Your task to perform on an android device: open chrome and create a bookmark for the current page Image 0: 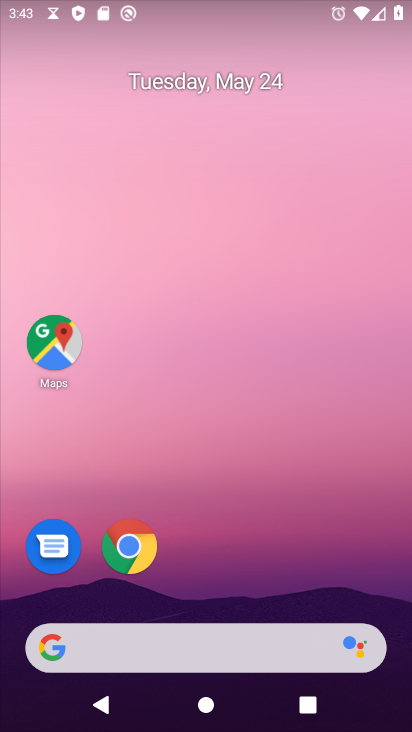
Step 0: drag from (382, 675) to (292, 168)
Your task to perform on an android device: open chrome and create a bookmark for the current page Image 1: 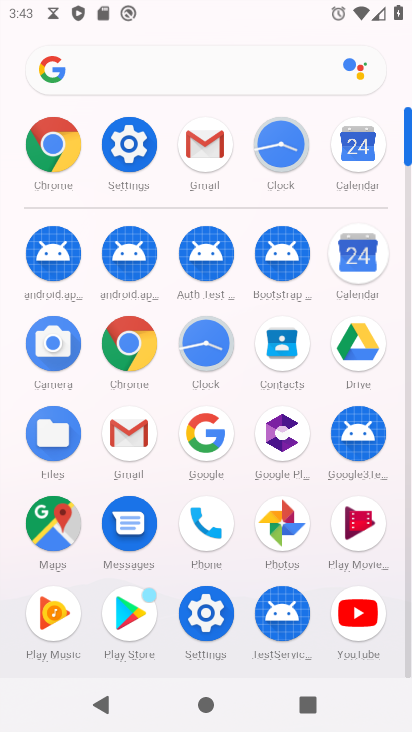
Step 1: click (47, 143)
Your task to perform on an android device: open chrome and create a bookmark for the current page Image 2: 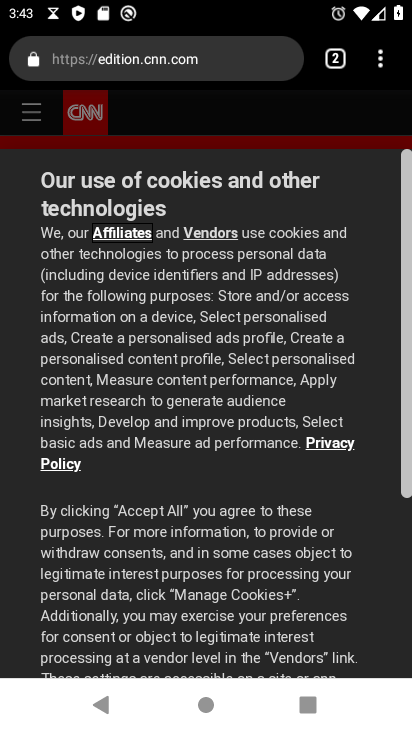
Step 2: drag from (382, 47) to (190, 218)
Your task to perform on an android device: open chrome and create a bookmark for the current page Image 3: 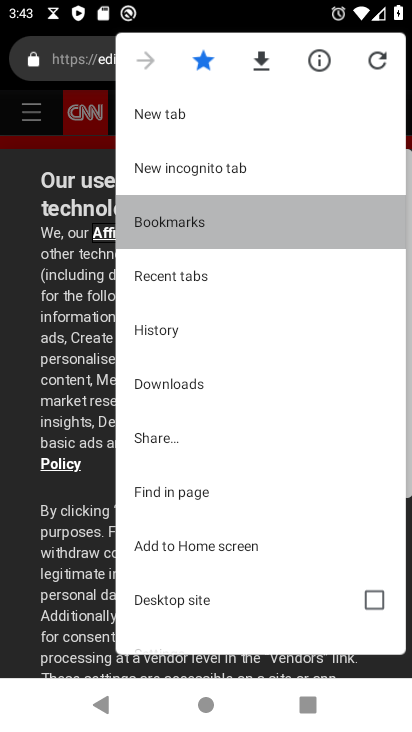
Step 3: click (189, 219)
Your task to perform on an android device: open chrome and create a bookmark for the current page Image 4: 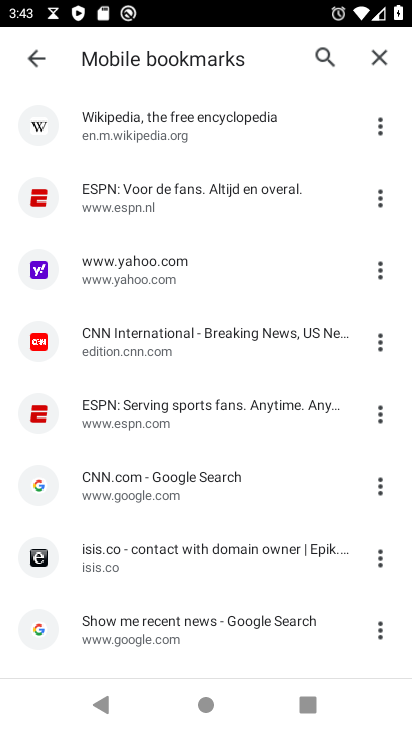
Step 4: click (380, 128)
Your task to perform on an android device: open chrome and create a bookmark for the current page Image 5: 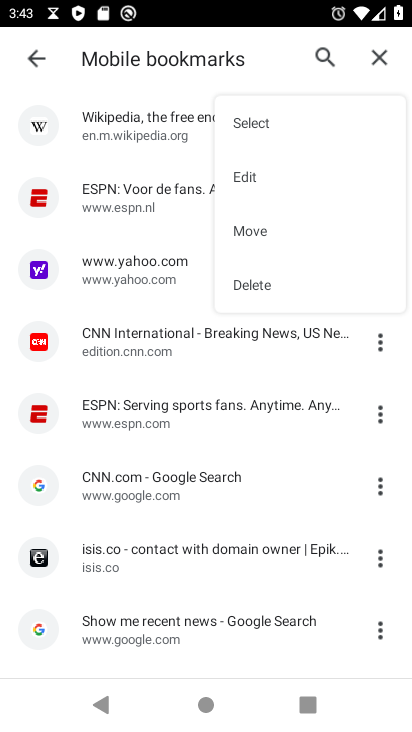
Step 5: click (32, 52)
Your task to perform on an android device: open chrome and create a bookmark for the current page Image 6: 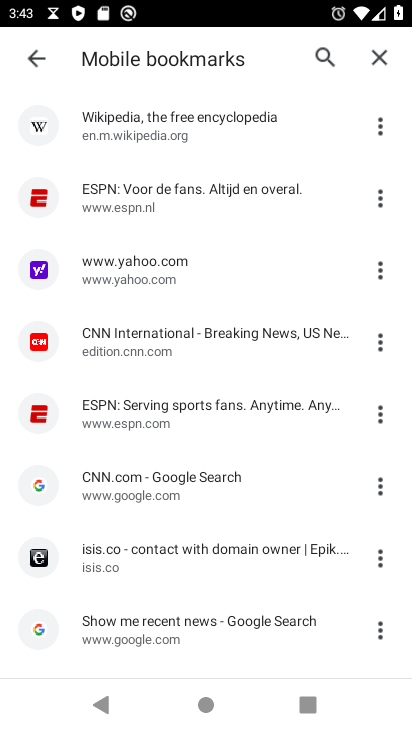
Step 6: click (33, 55)
Your task to perform on an android device: open chrome and create a bookmark for the current page Image 7: 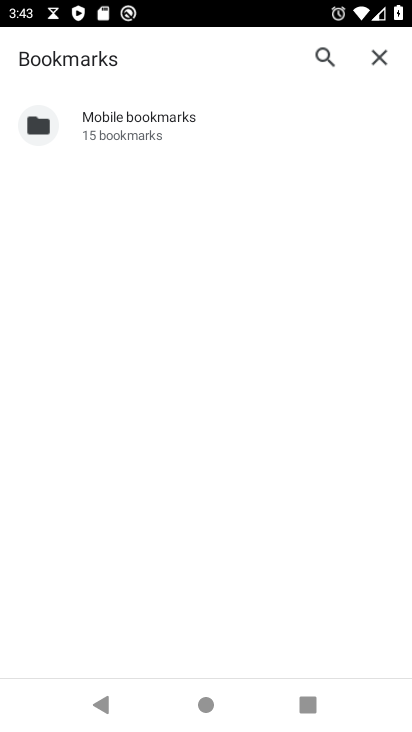
Step 7: click (372, 54)
Your task to perform on an android device: open chrome and create a bookmark for the current page Image 8: 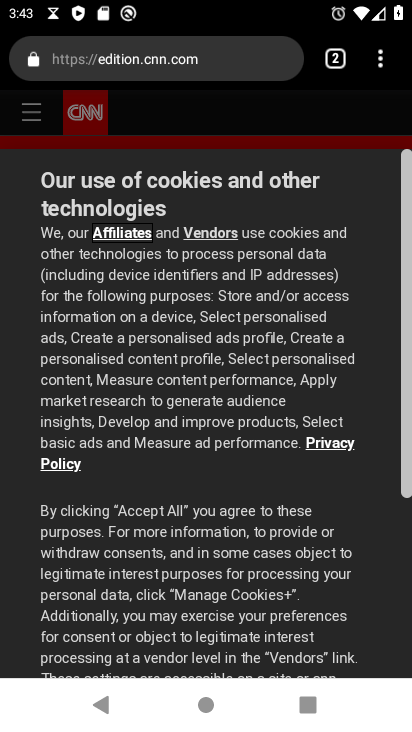
Step 8: click (381, 70)
Your task to perform on an android device: open chrome and create a bookmark for the current page Image 9: 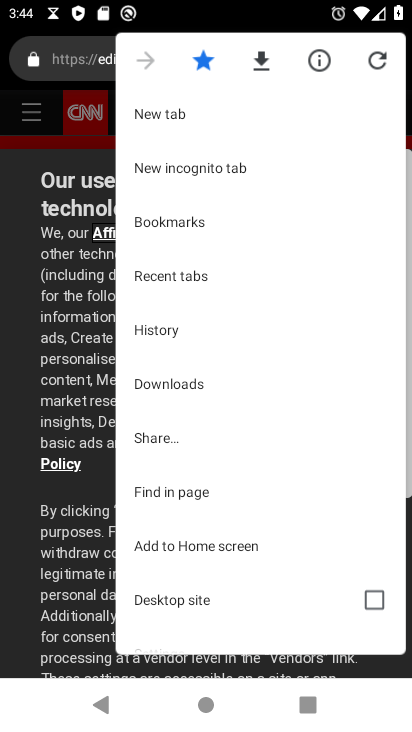
Step 9: click (200, 55)
Your task to perform on an android device: open chrome and create a bookmark for the current page Image 10: 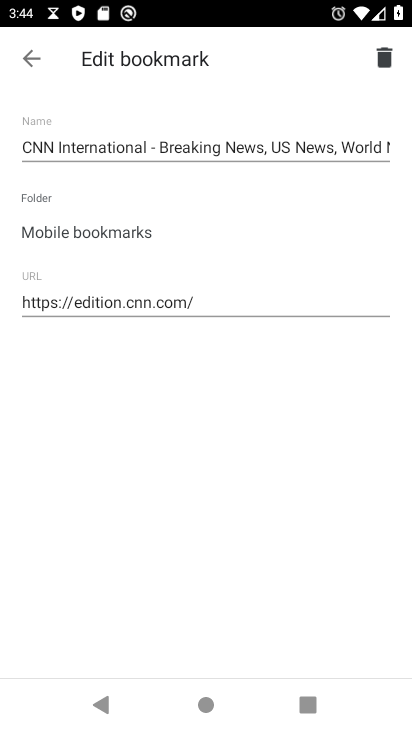
Step 10: click (33, 64)
Your task to perform on an android device: open chrome and create a bookmark for the current page Image 11: 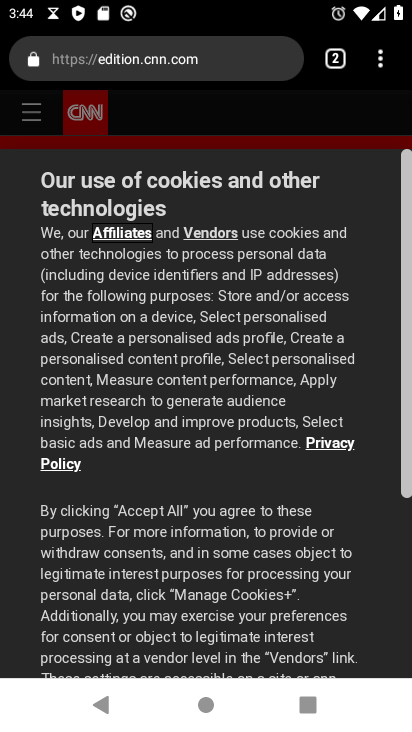
Step 11: click (82, 55)
Your task to perform on an android device: open chrome and create a bookmark for the current page Image 12: 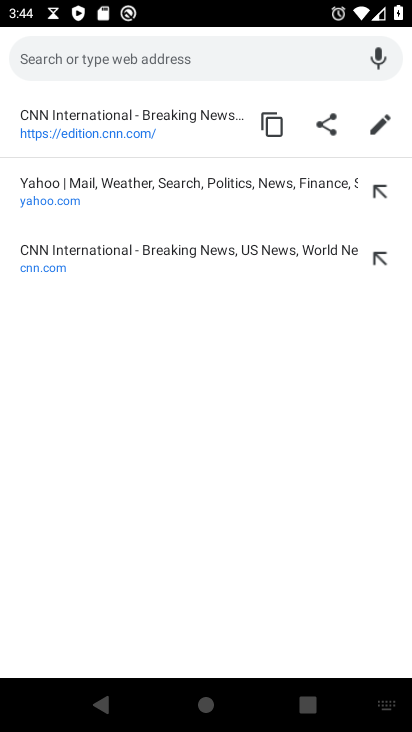
Step 12: type "www.snapdeal.com"
Your task to perform on an android device: open chrome and create a bookmark for the current page Image 13: 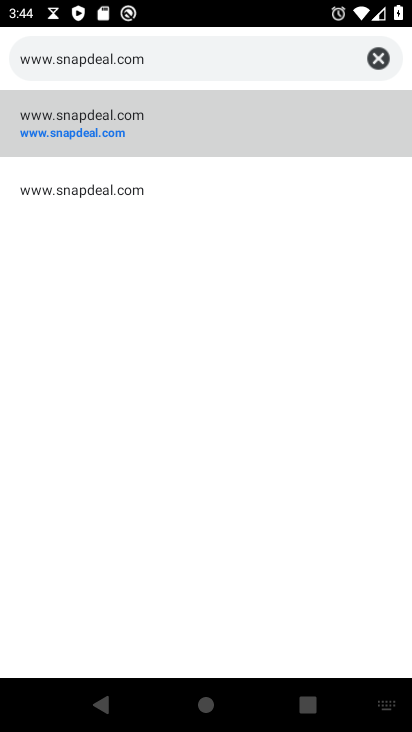
Step 13: click (71, 132)
Your task to perform on an android device: open chrome and create a bookmark for the current page Image 14: 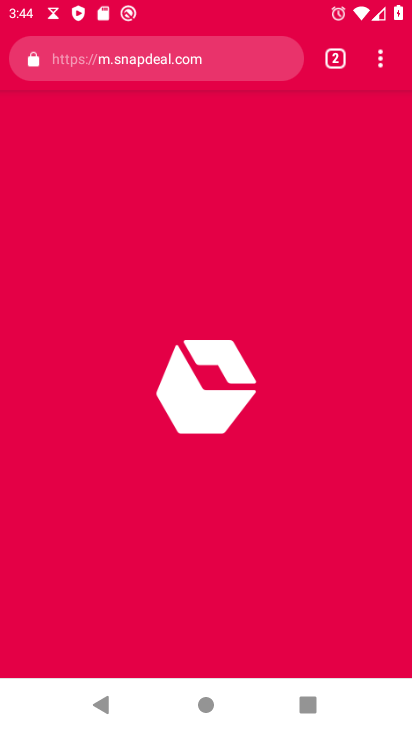
Step 14: click (147, 51)
Your task to perform on an android device: open chrome and create a bookmark for the current page Image 15: 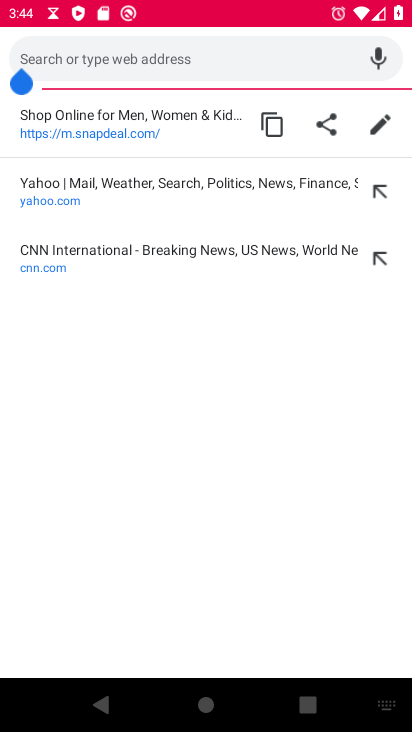
Step 15: click (146, 52)
Your task to perform on an android device: open chrome and create a bookmark for the current page Image 16: 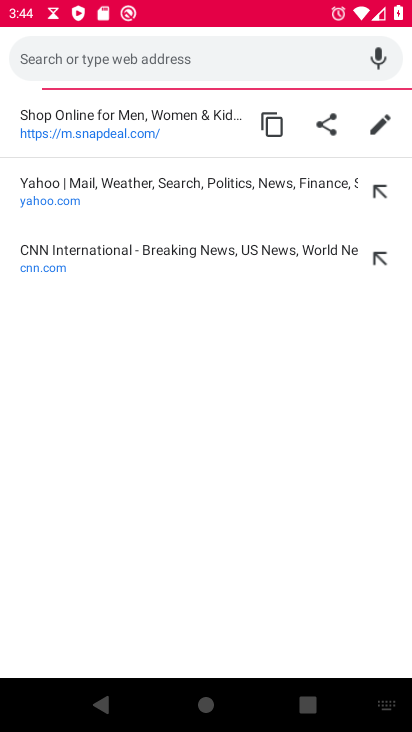
Step 16: click (108, 134)
Your task to perform on an android device: open chrome and create a bookmark for the current page Image 17: 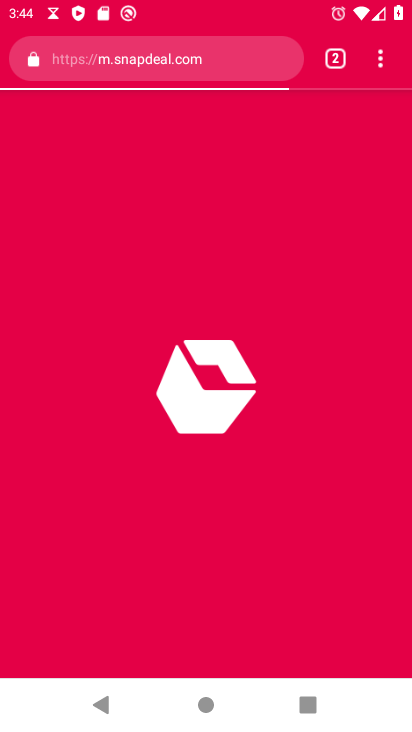
Step 17: click (378, 60)
Your task to perform on an android device: open chrome and create a bookmark for the current page Image 18: 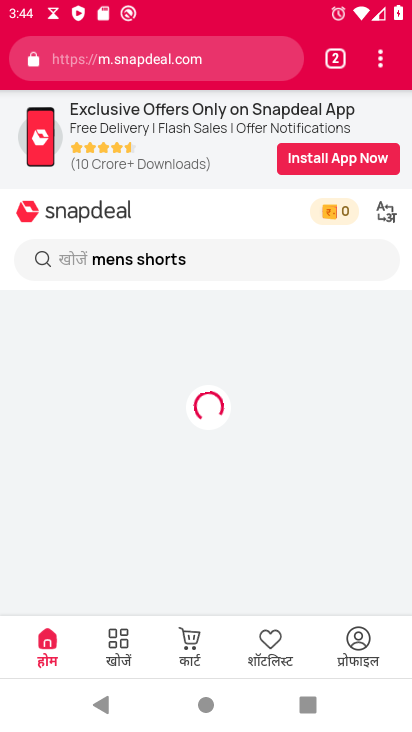
Step 18: drag from (378, 60) to (197, 61)
Your task to perform on an android device: open chrome and create a bookmark for the current page Image 19: 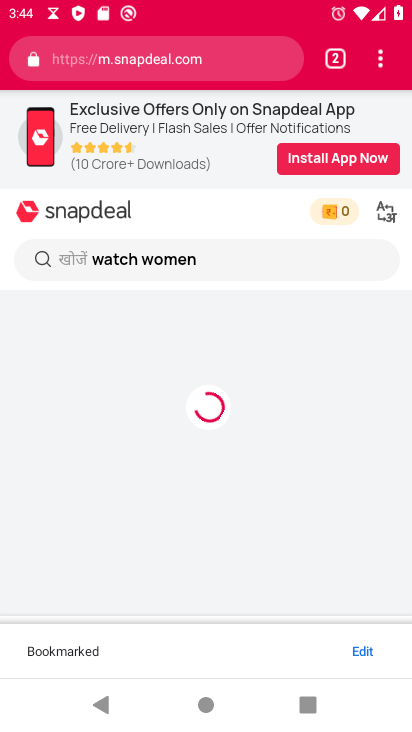
Step 19: click (382, 58)
Your task to perform on an android device: open chrome and create a bookmark for the current page Image 20: 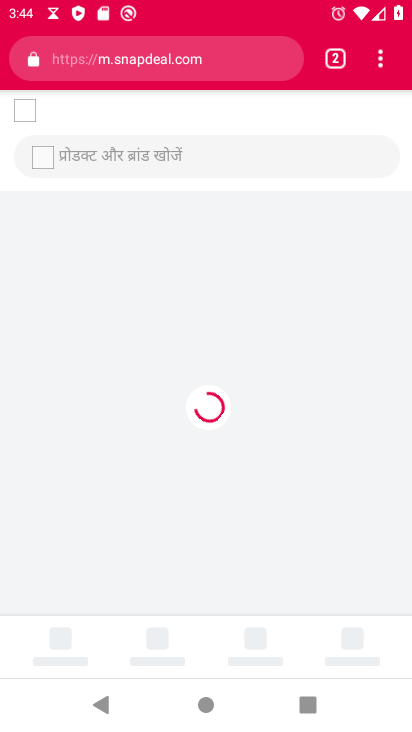
Step 20: click (374, 51)
Your task to perform on an android device: open chrome and create a bookmark for the current page Image 21: 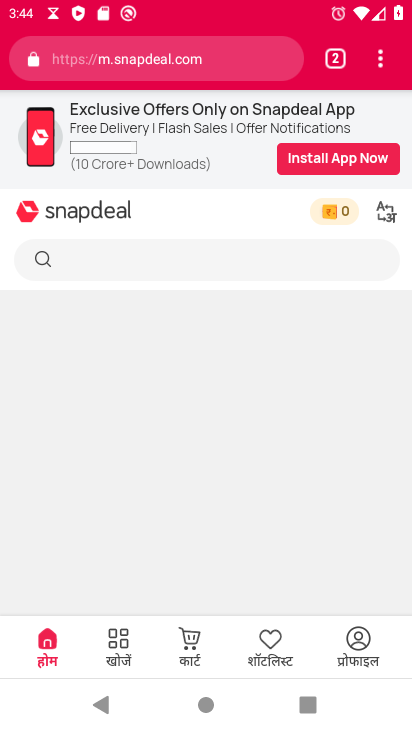
Step 21: click (374, 51)
Your task to perform on an android device: open chrome and create a bookmark for the current page Image 22: 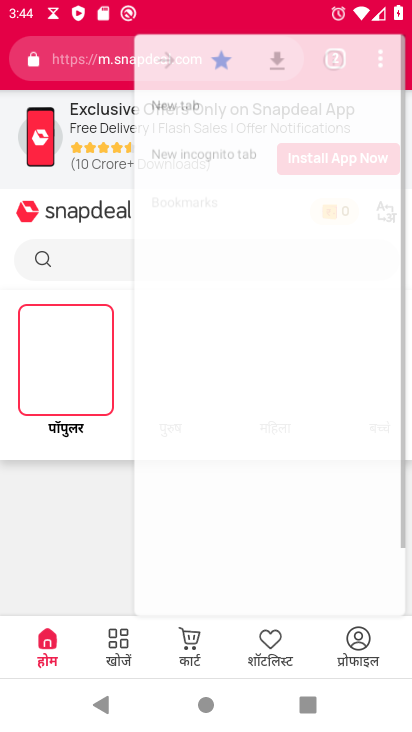
Step 22: click (374, 51)
Your task to perform on an android device: open chrome and create a bookmark for the current page Image 23: 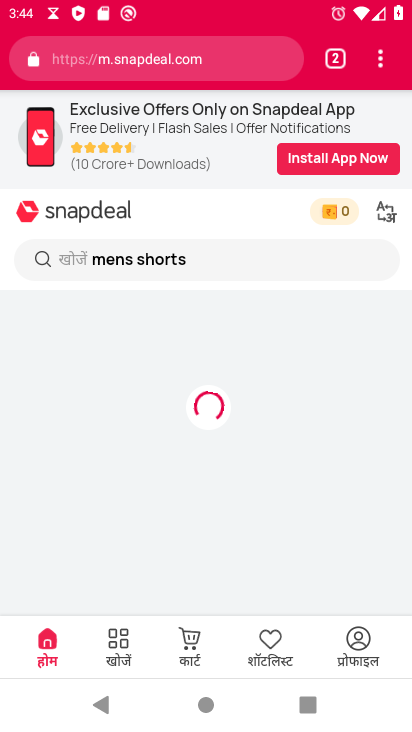
Step 23: task complete